Your task to perform on an android device: Search for Mexican restaurants on Maps Image 0: 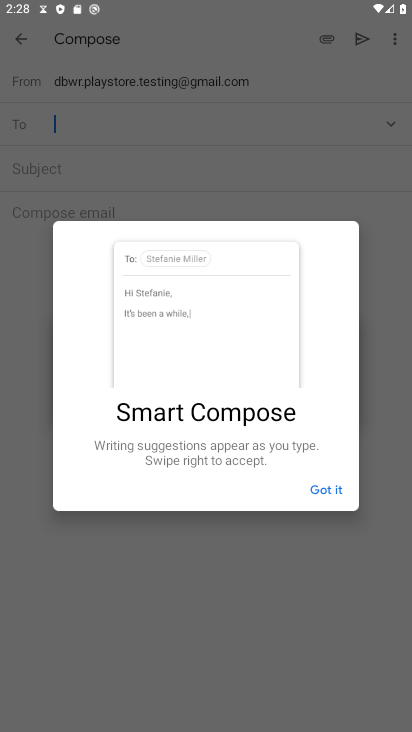
Step 0: press home button
Your task to perform on an android device: Search for Mexican restaurants on Maps Image 1: 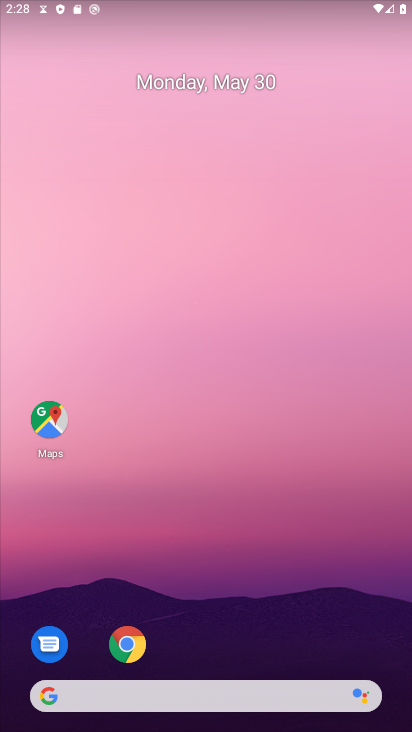
Step 1: click (60, 418)
Your task to perform on an android device: Search for Mexican restaurants on Maps Image 2: 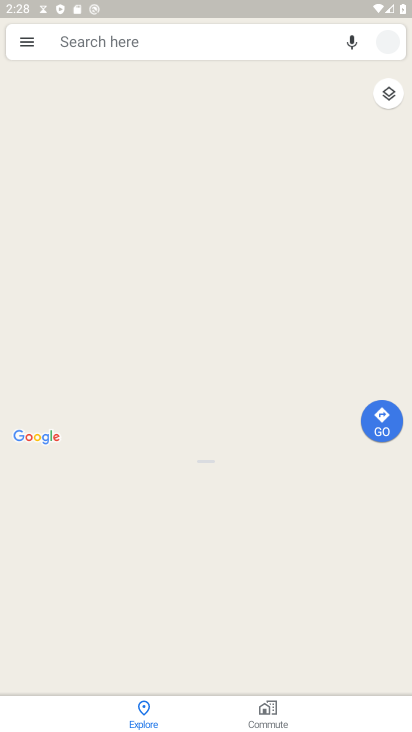
Step 2: click (120, 38)
Your task to perform on an android device: Search for Mexican restaurants on Maps Image 3: 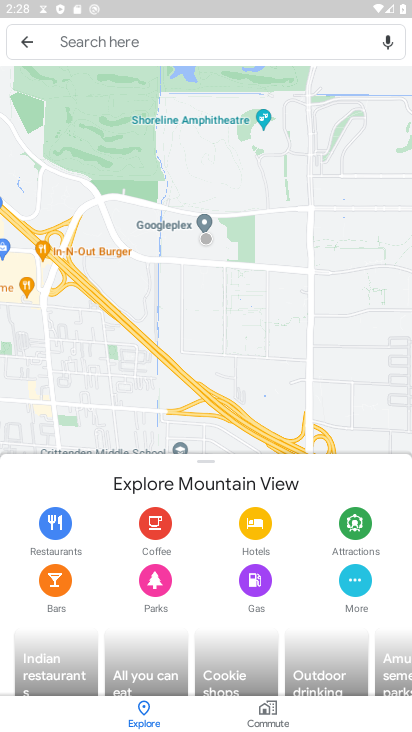
Step 3: click (135, 41)
Your task to perform on an android device: Search for Mexican restaurants on Maps Image 4: 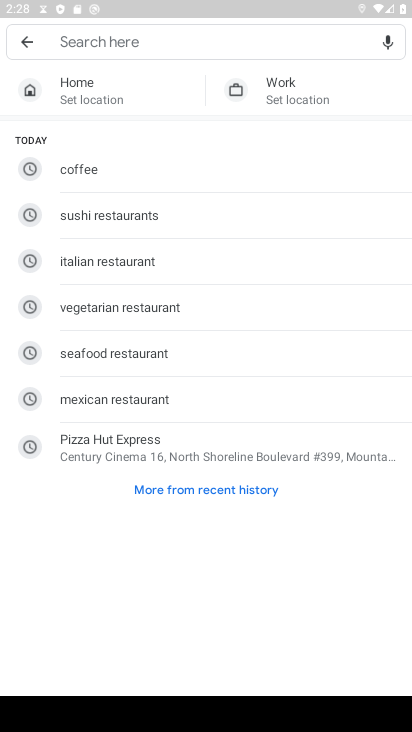
Step 4: click (114, 399)
Your task to perform on an android device: Search for Mexican restaurants on Maps Image 5: 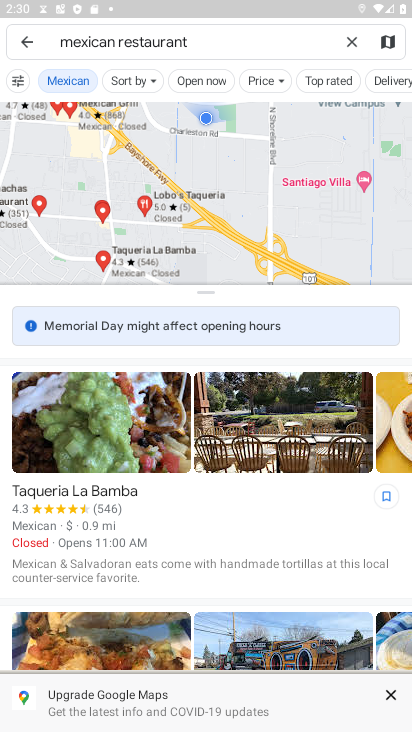
Step 5: task complete